Your task to perform on an android device: Open the phone app and click the voicemail tab. Image 0: 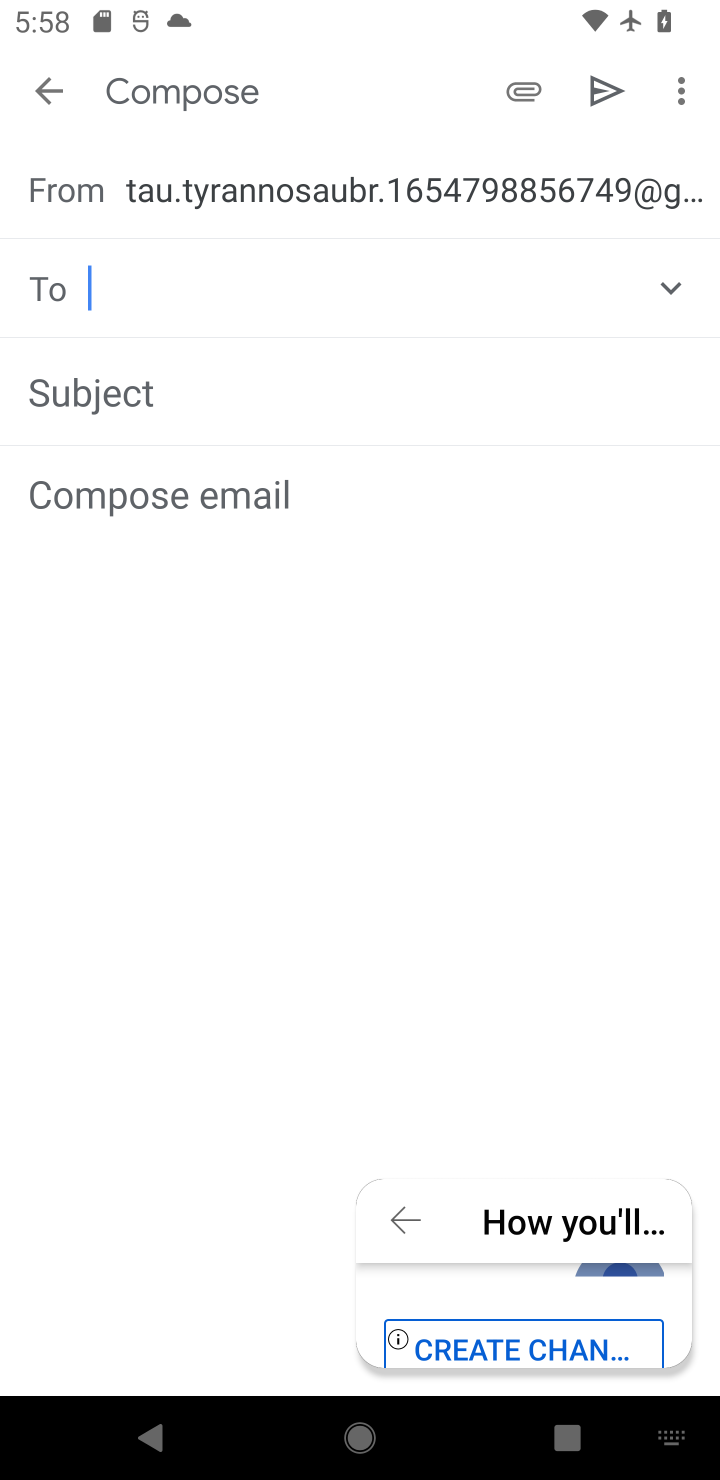
Step 0: press home button
Your task to perform on an android device: Open the phone app and click the voicemail tab. Image 1: 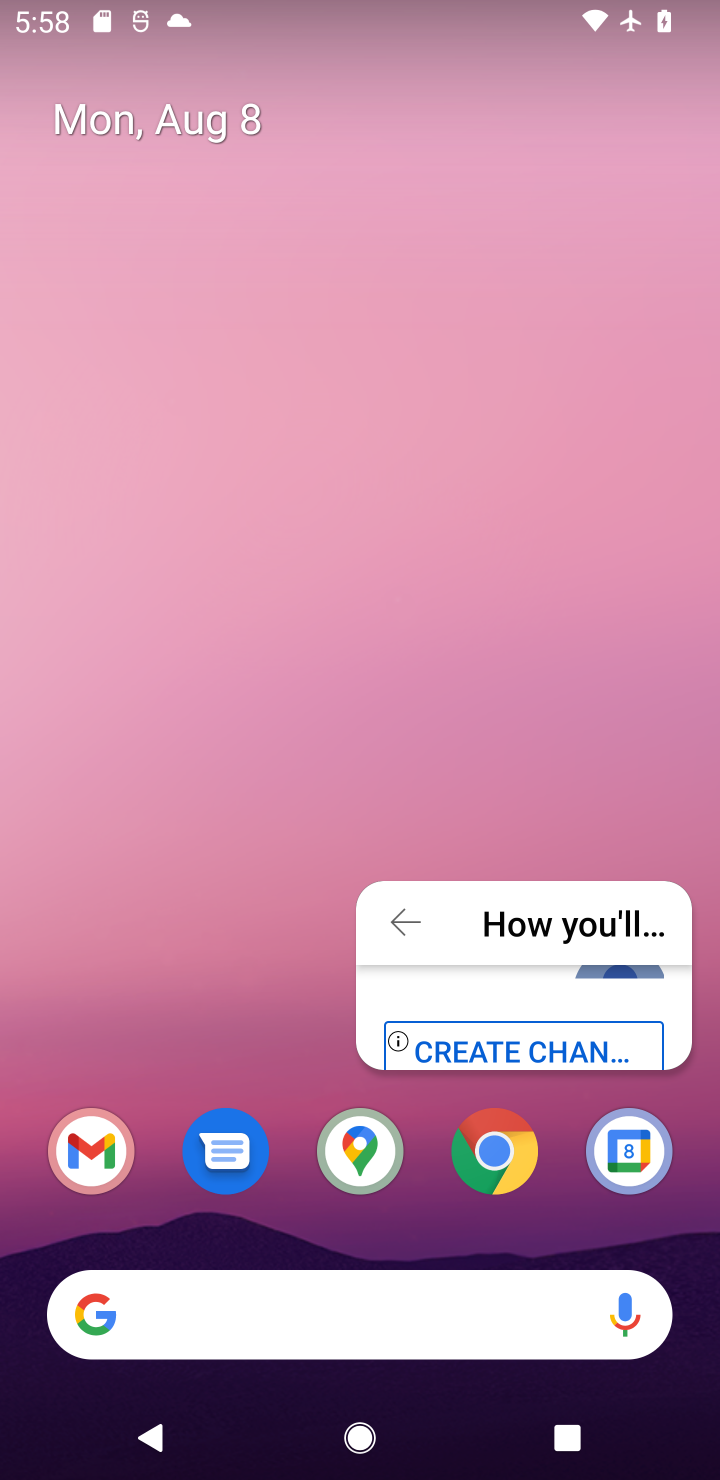
Step 1: drag from (301, 216) to (392, 144)
Your task to perform on an android device: Open the phone app and click the voicemail tab. Image 2: 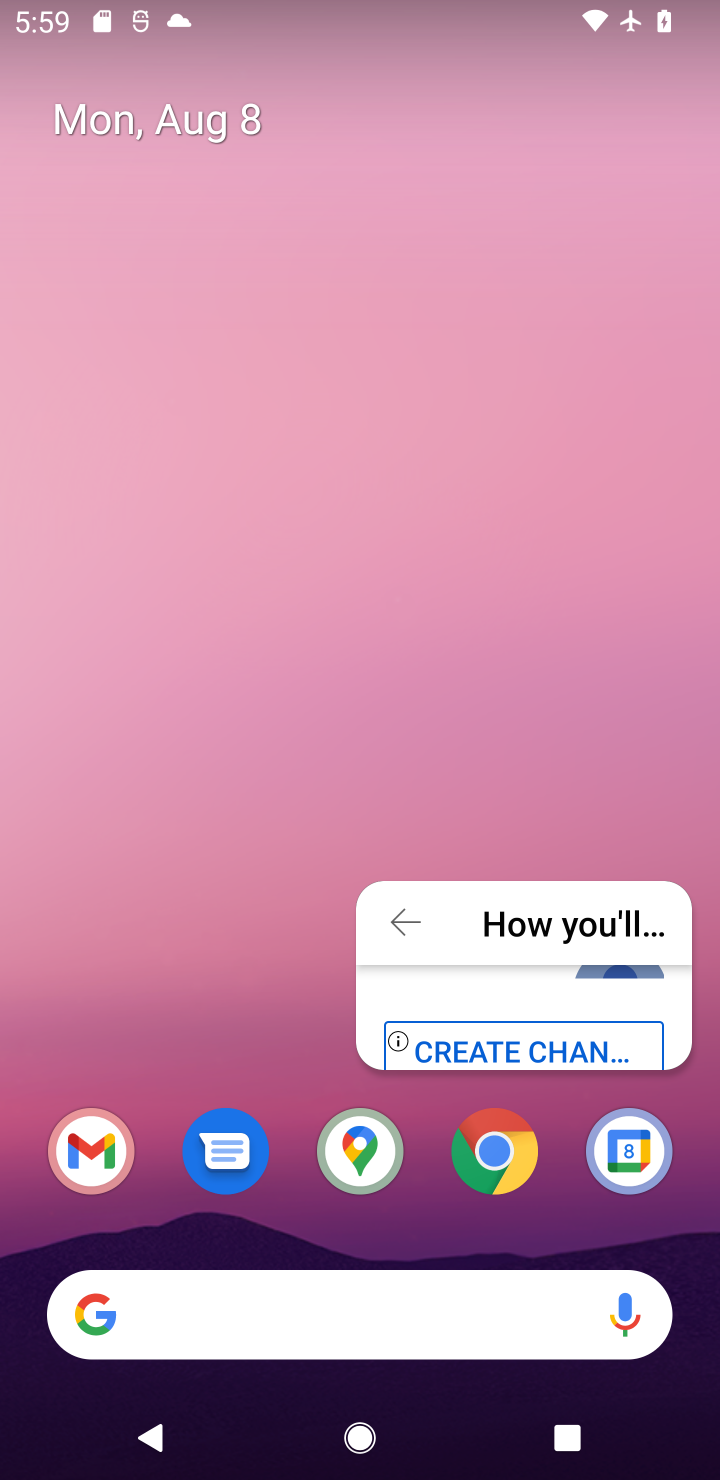
Step 2: drag from (294, 1063) to (320, 233)
Your task to perform on an android device: Open the phone app and click the voicemail tab. Image 3: 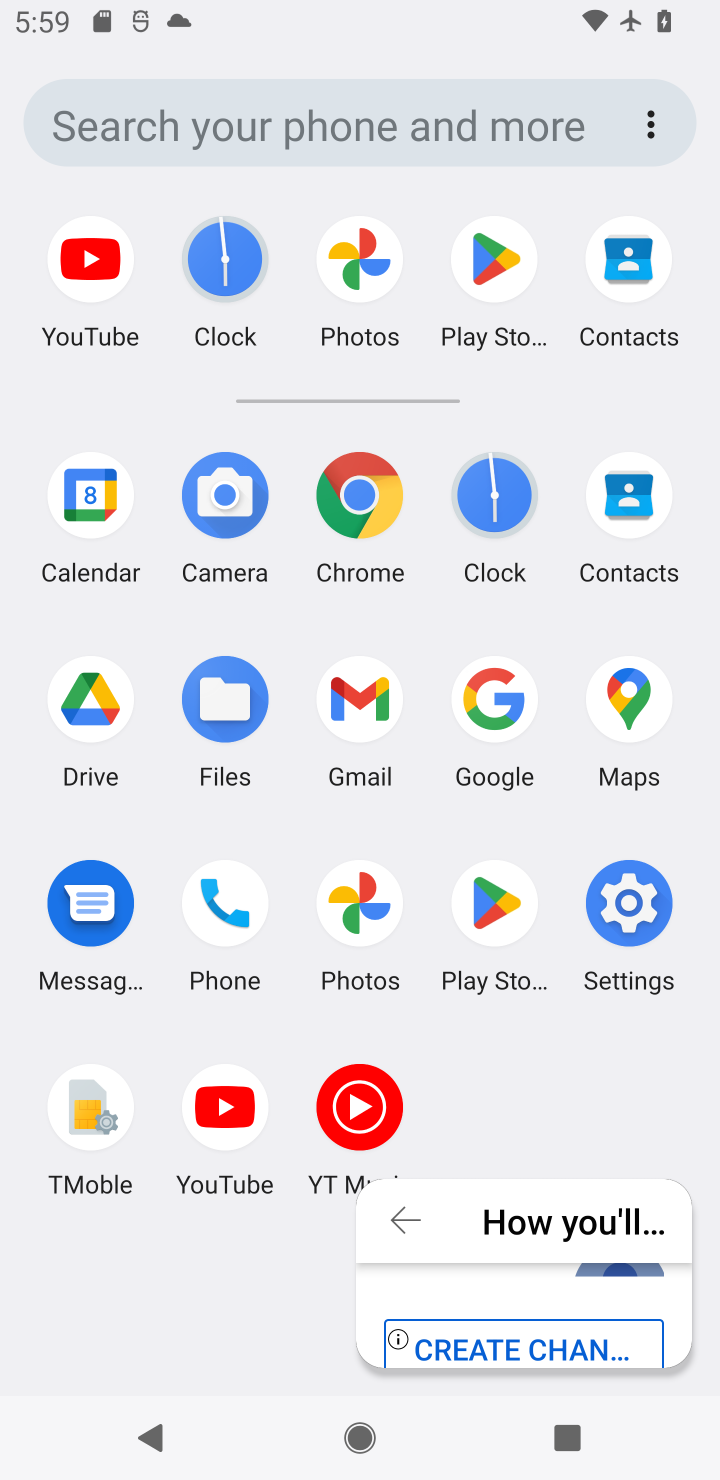
Step 3: click (233, 915)
Your task to perform on an android device: Open the phone app and click the voicemail tab. Image 4: 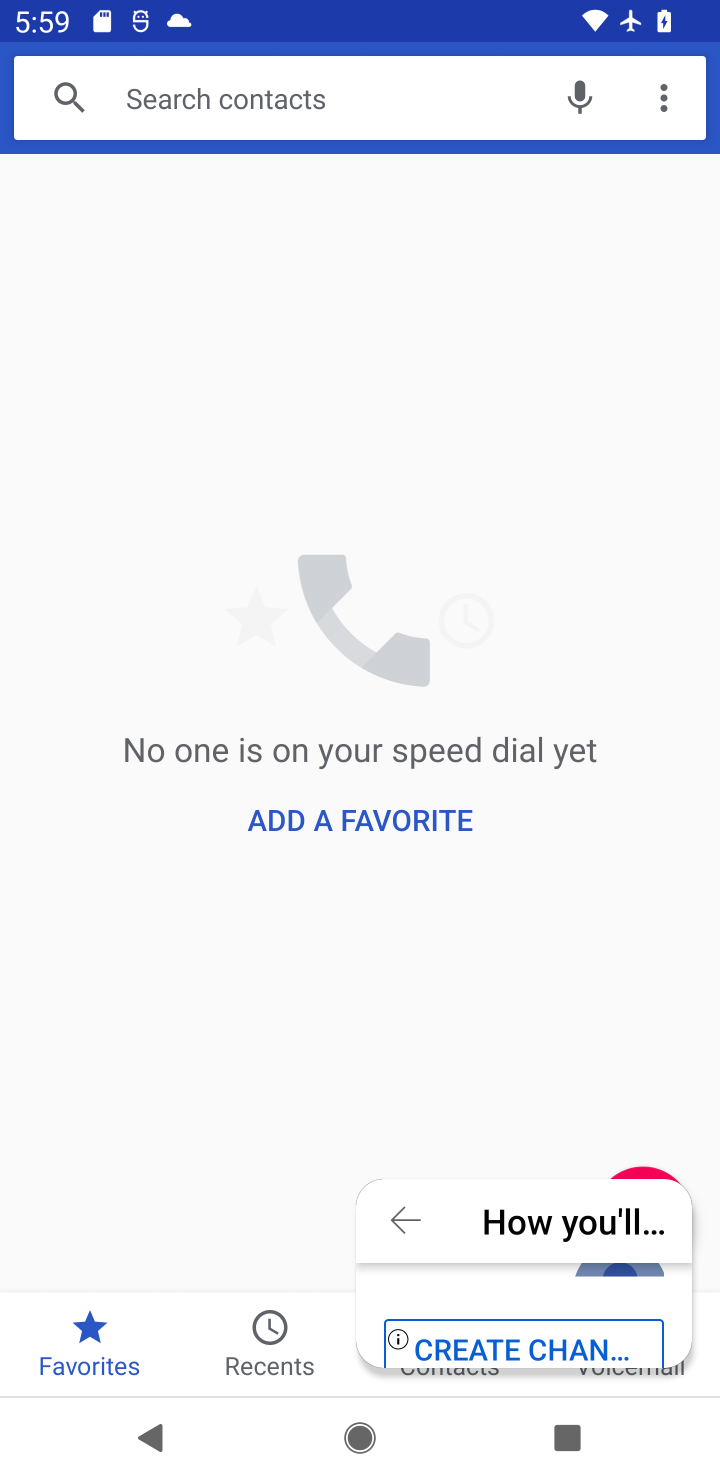
Step 4: drag from (647, 1330) to (391, 761)
Your task to perform on an android device: Open the phone app and click the voicemail tab. Image 5: 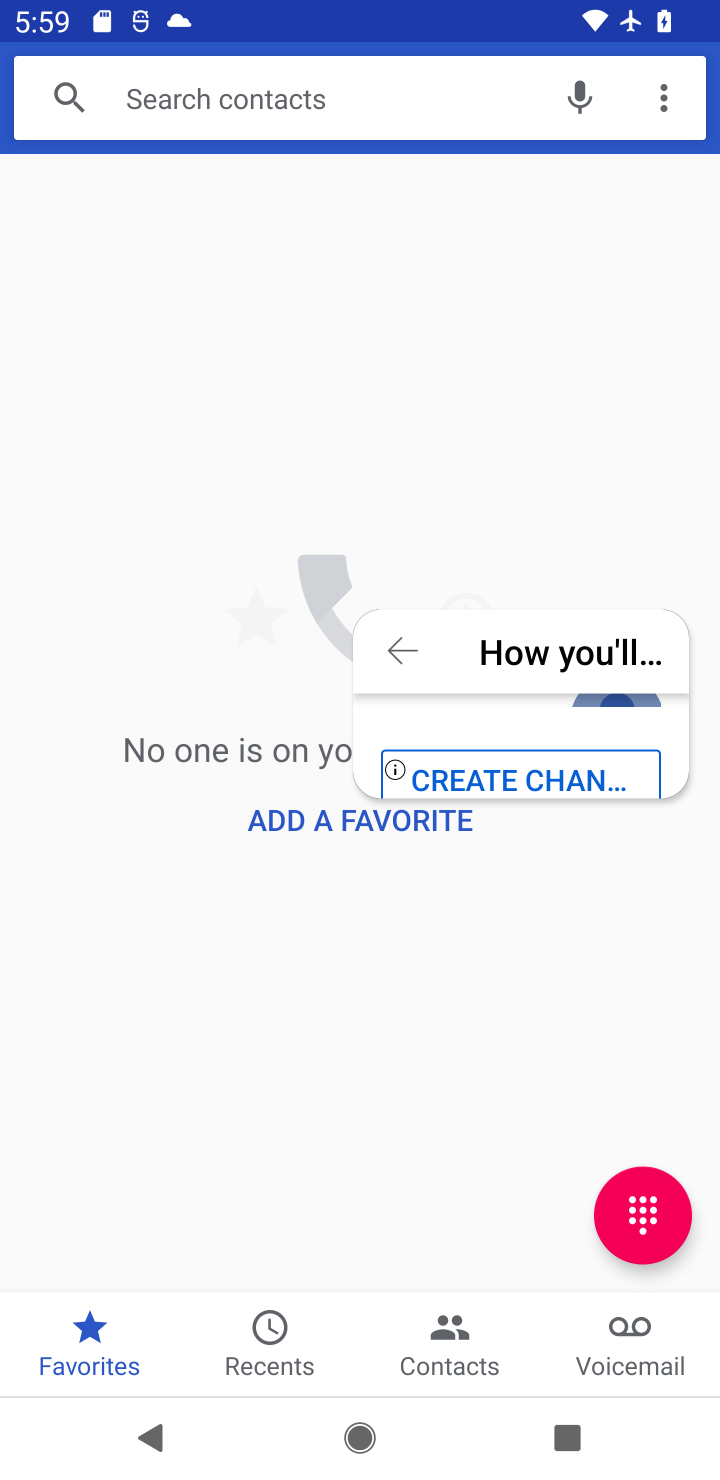
Step 5: drag from (434, 1052) to (325, 1383)
Your task to perform on an android device: Open the phone app and click the voicemail tab. Image 6: 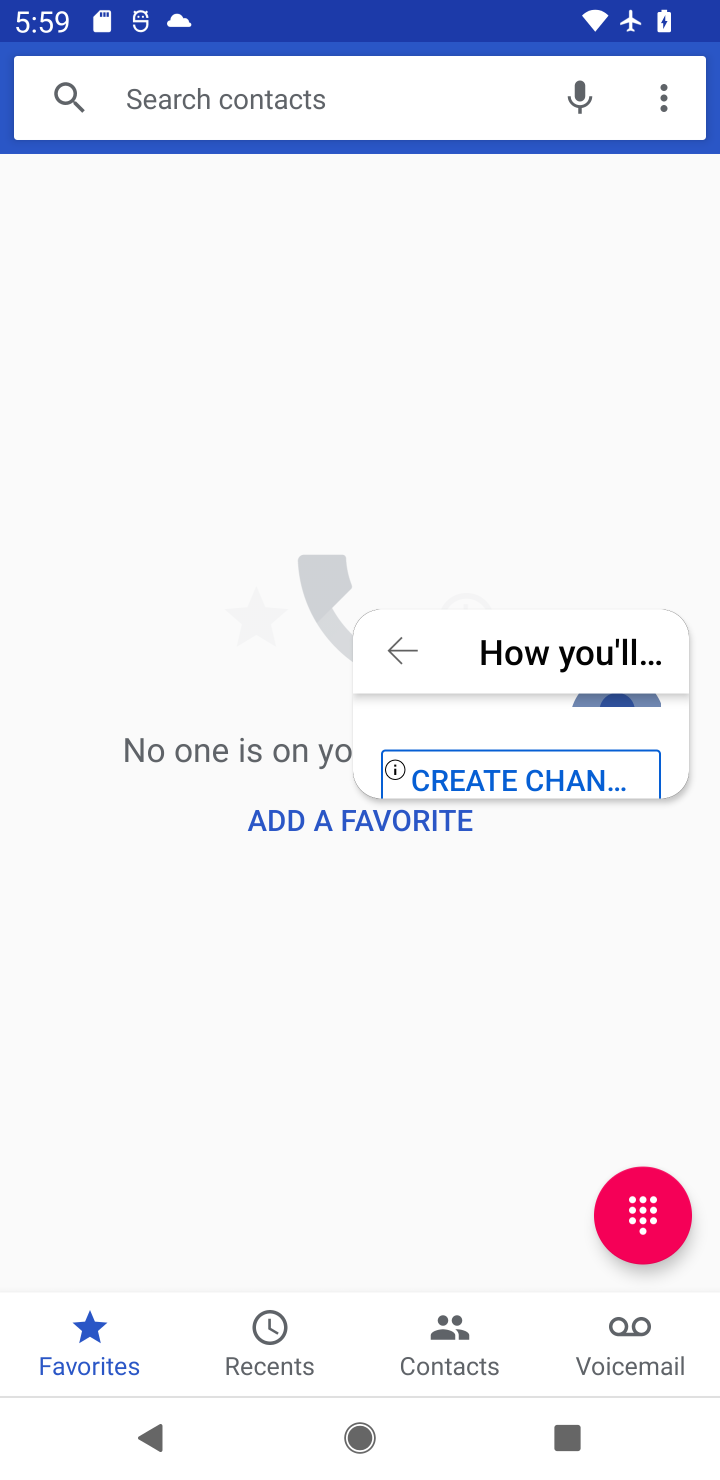
Step 6: drag from (482, 870) to (298, 1369)
Your task to perform on an android device: Open the phone app and click the voicemail tab. Image 7: 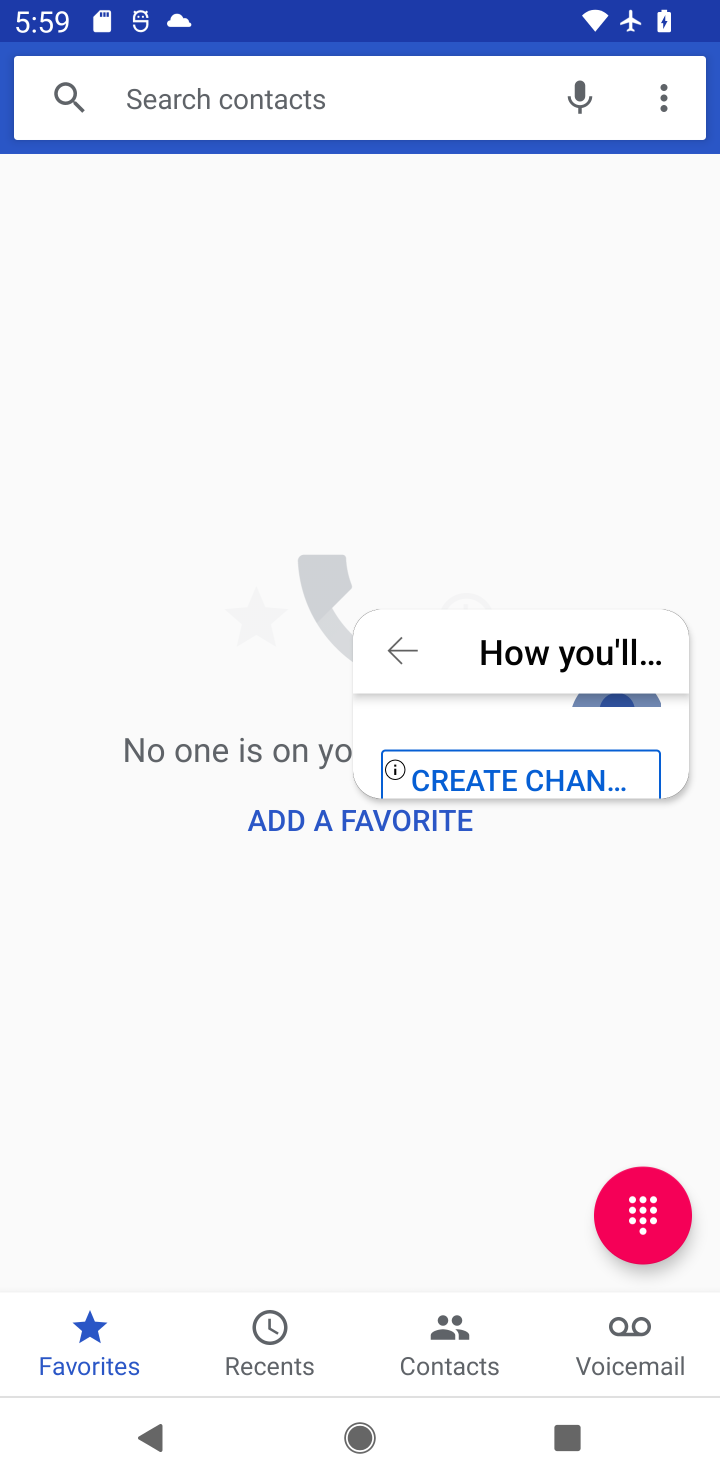
Step 7: click (623, 1349)
Your task to perform on an android device: Open the phone app and click the voicemail tab. Image 8: 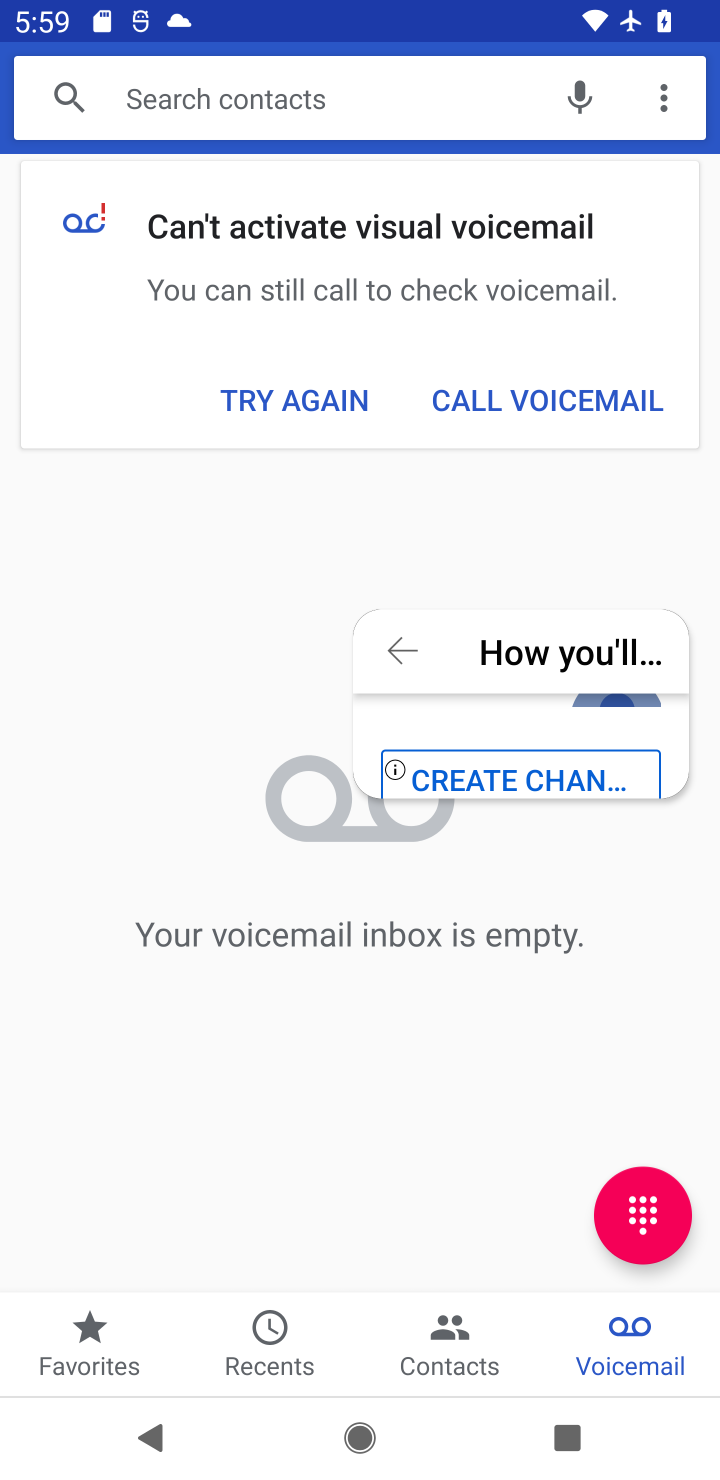
Step 8: click (613, 1328)
Your task to perform on an android device: Open the phone app and click the voicemail tab. Image 9: 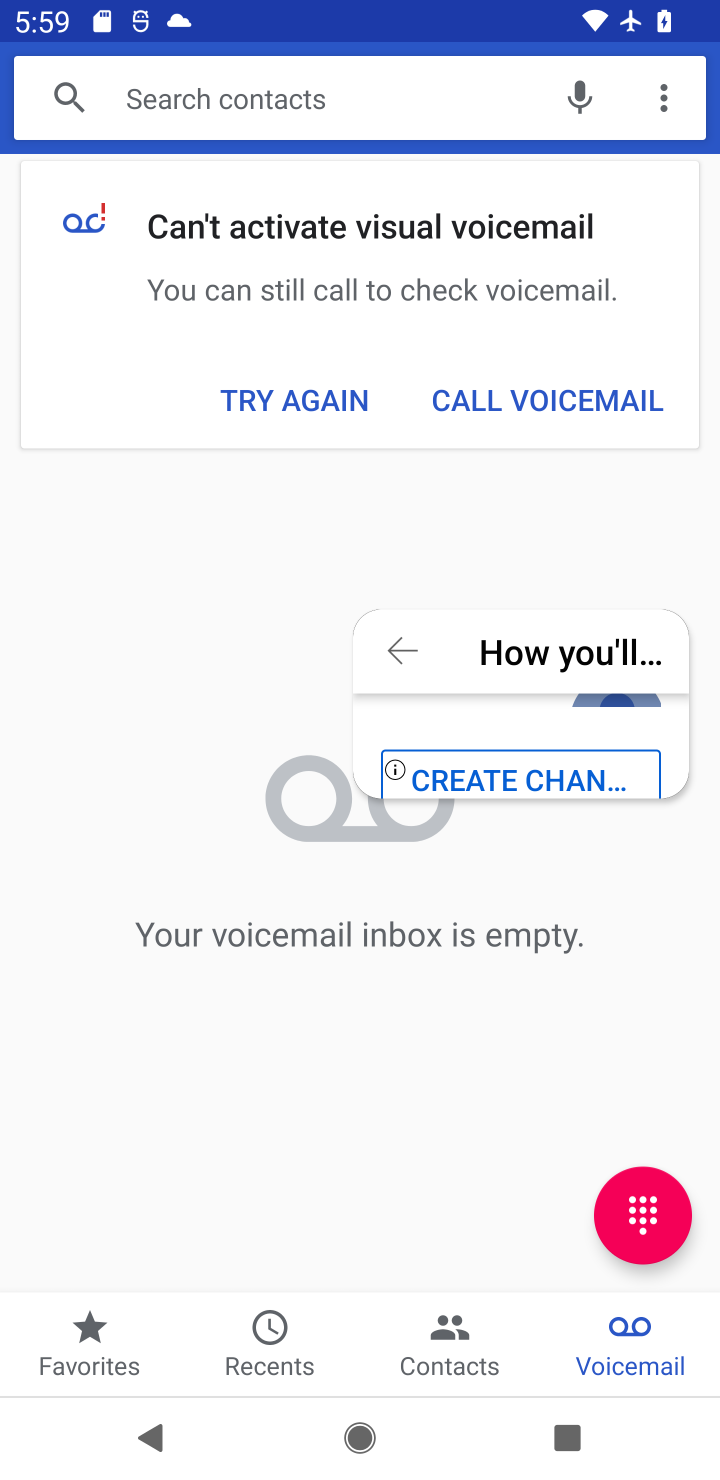
Step 9: task complete